Your task to perform on an android device: Go to internet settings Image 0: 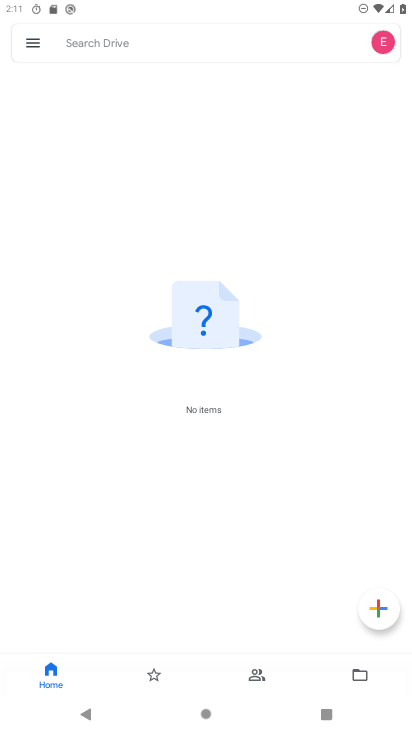
Step 0: press home button
Your task to perform on an android device: Go to internet settings Image 1: 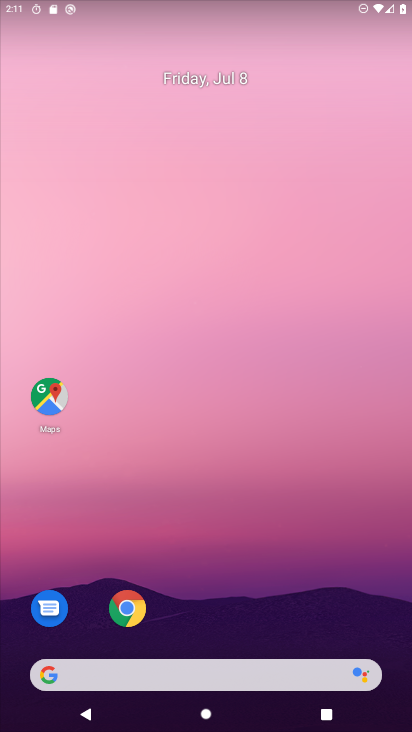
Step 1: drag from (241, 711) to (211, 53)
Your task to perform on an android device: Go to internet settings Image 2: 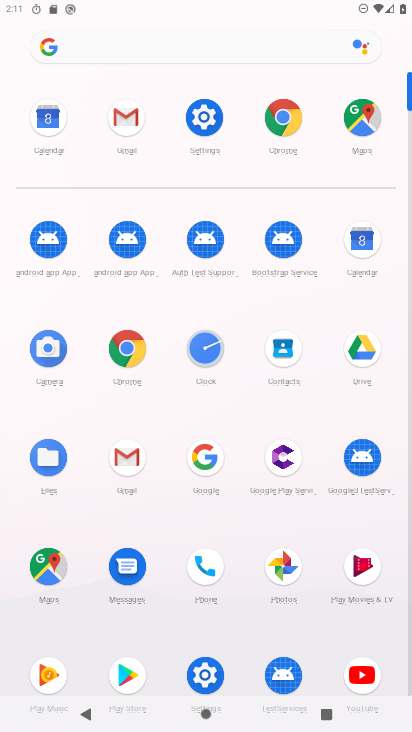
Step 2: click (208, 113)
Your task to perform on an android device: Go to internet settings Image 3: 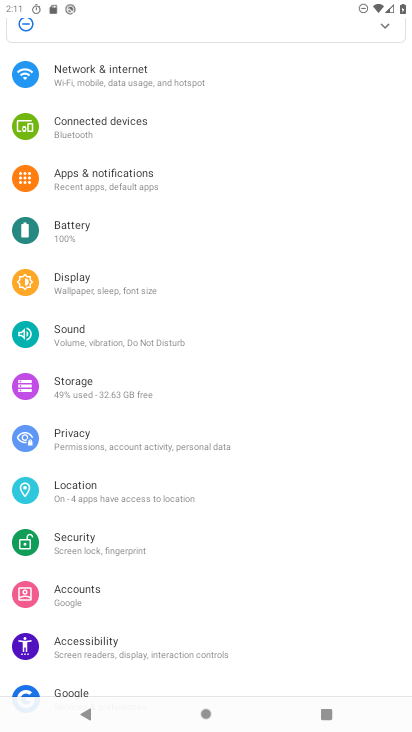
Step 3: click (132, 82)
Your task to perform on an android device: Go to internet settings Image 4: 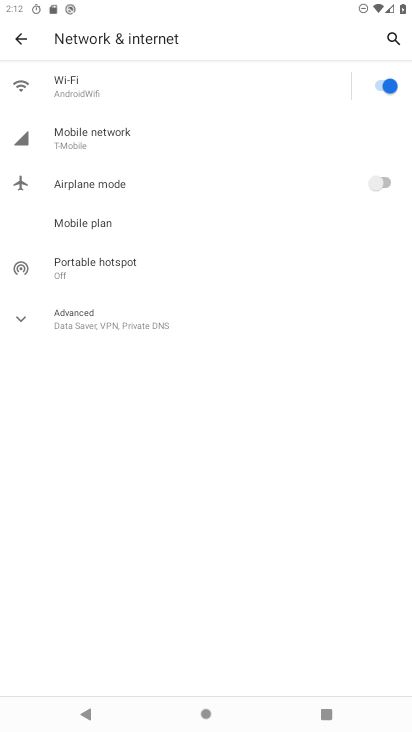
Step 4: task complete